Your task to perform on an android device: open chrome privacy settings Image 0: 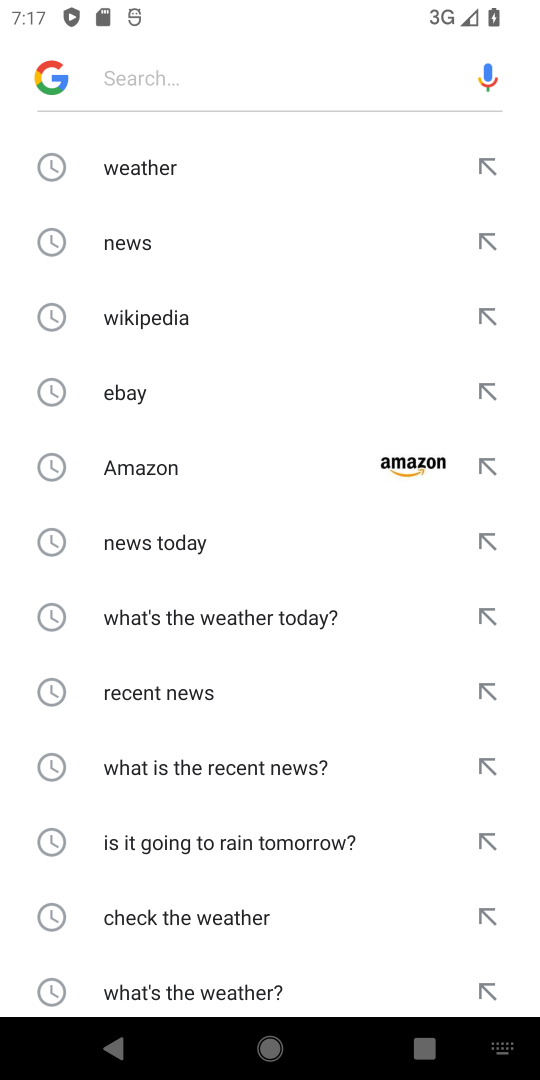
Step 0: press back button
Your task to perform on an android device: open chrome privacy settings Image 1: 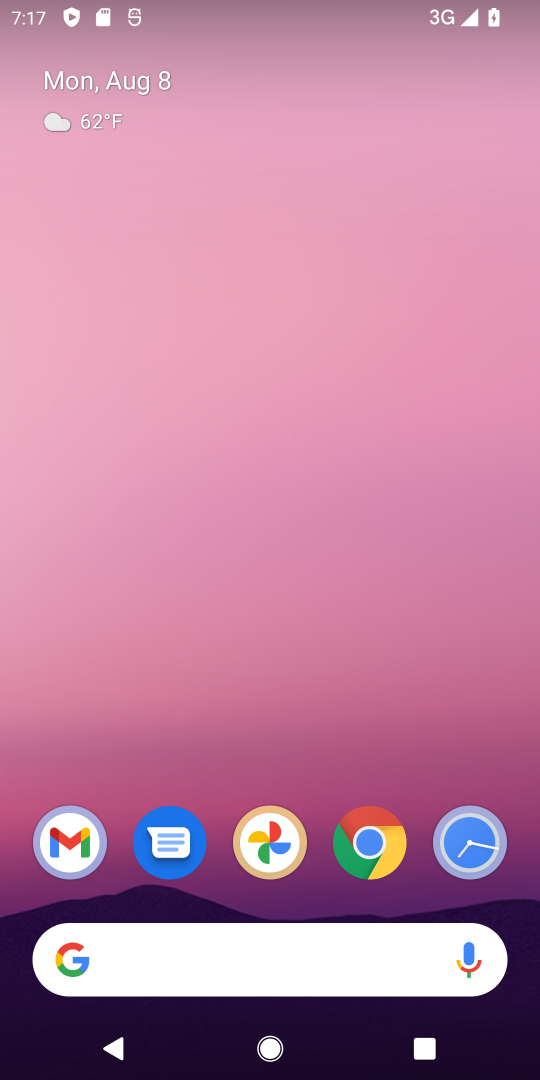
Step 1: click (377, 844)
Your task to perform on an android device: open chrome privacy settings Image 2: 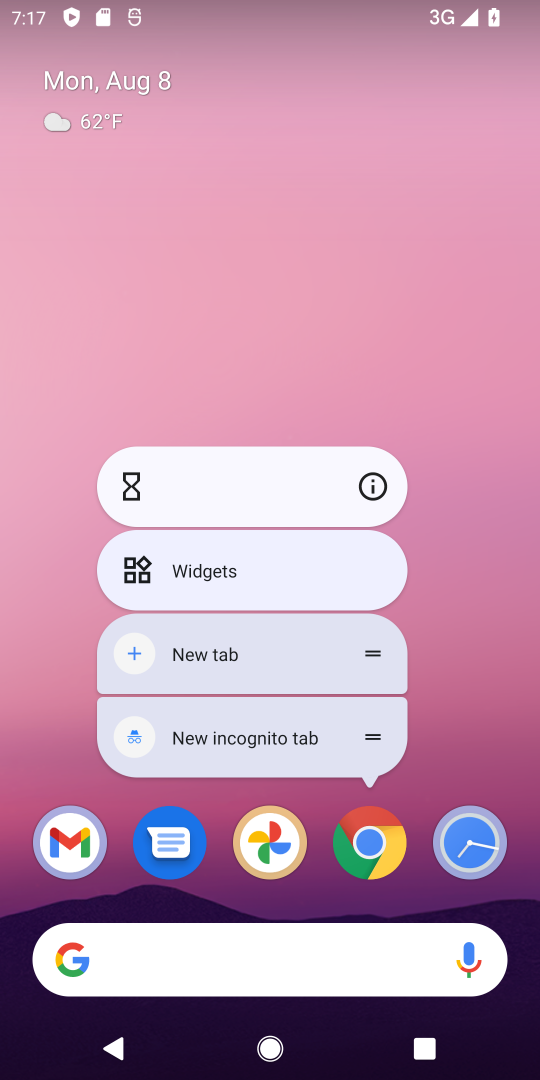
Step 2: click (389, 858)
Your task to perform on an android device: open chrome privacy settings Image 3: 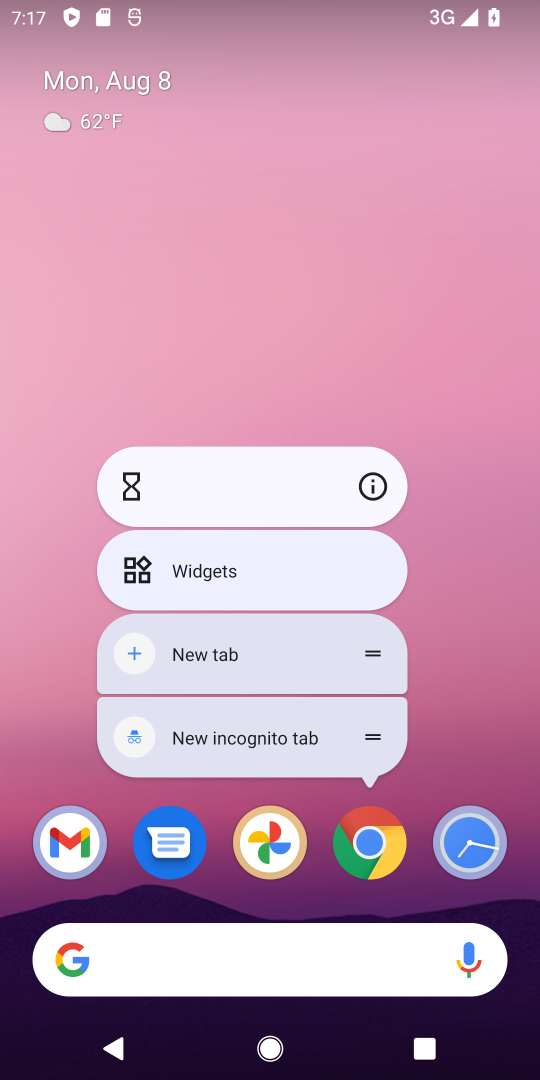
Step 3: click (389, 857)
Your task to perform on an android device: open chrome privacy settings Image 4: 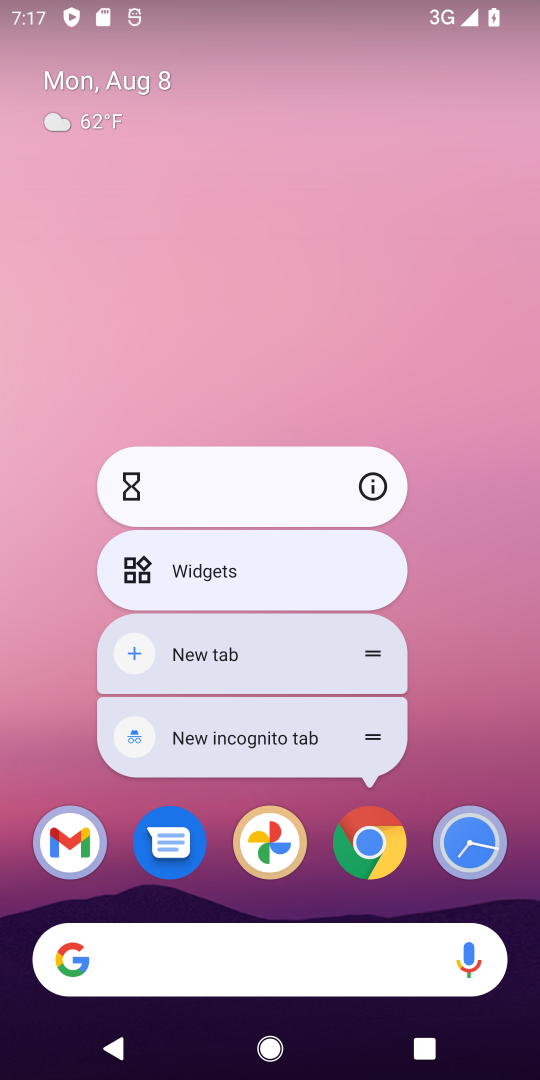
Step 4: click (386, 843)
Your task to perform on an android device: open chrome privacy settings Image 5: 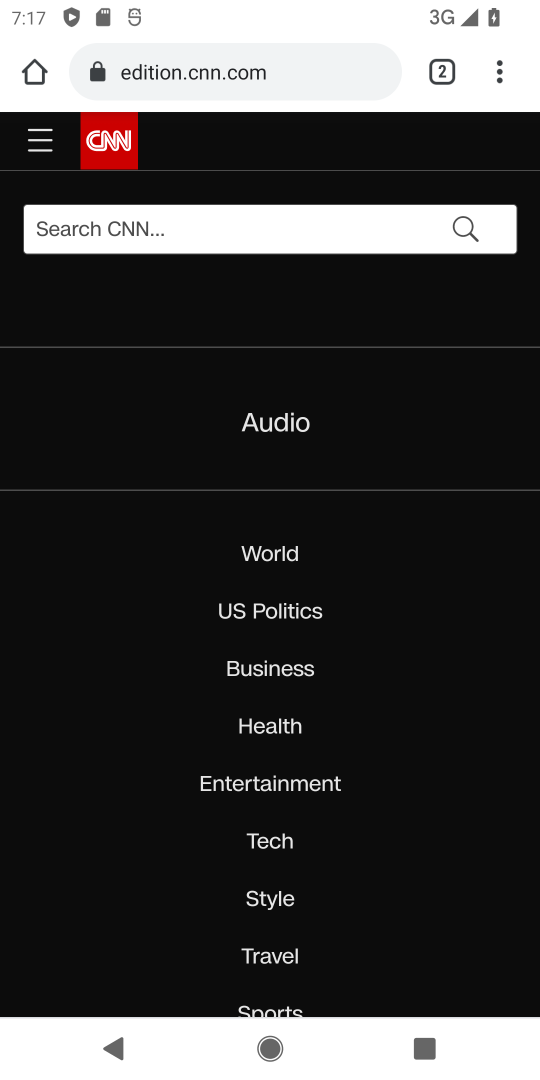
Step 5: drag from (491, 76) to (266, 834)
Your task to perform on an android device: open chrome privacy settings Image 6: 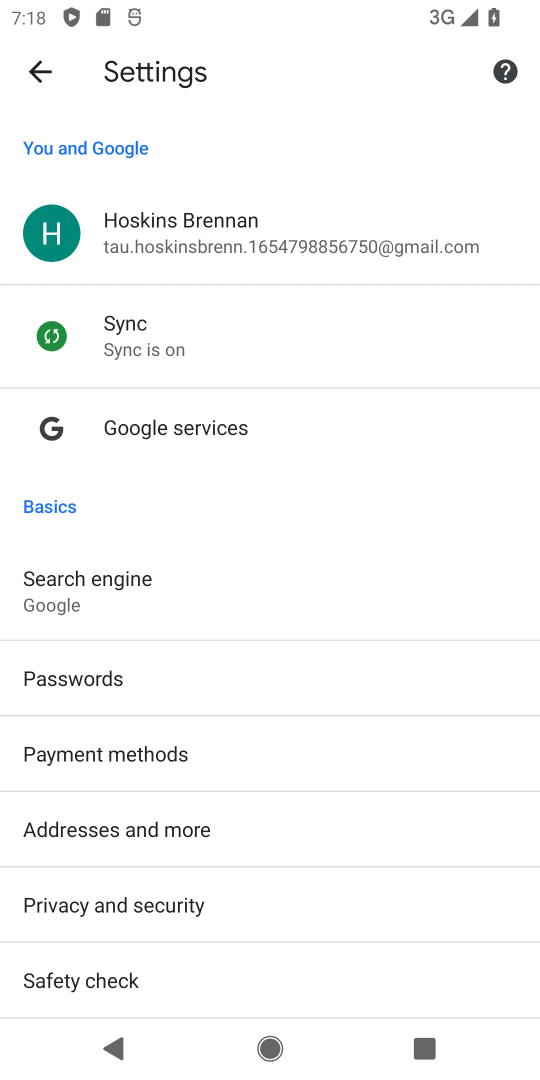
Step 6: drag from (106, 855) to (79, 104)
Your task to perform on an android device: open chrome privacy settings Image 7: 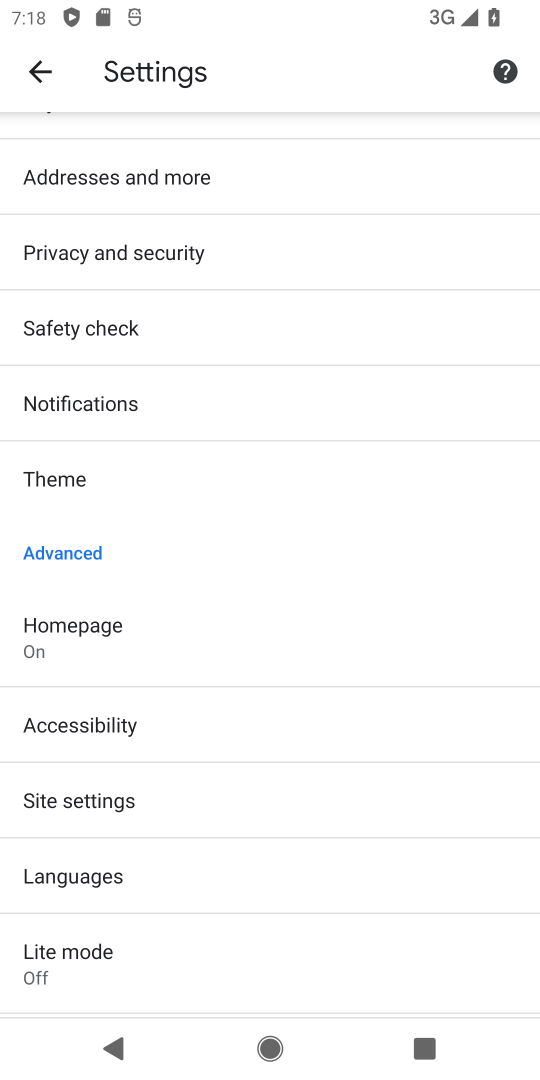
Step 7: click (58, 261)
Your task to perform on an android device: open chrome privacy settings Image 8: 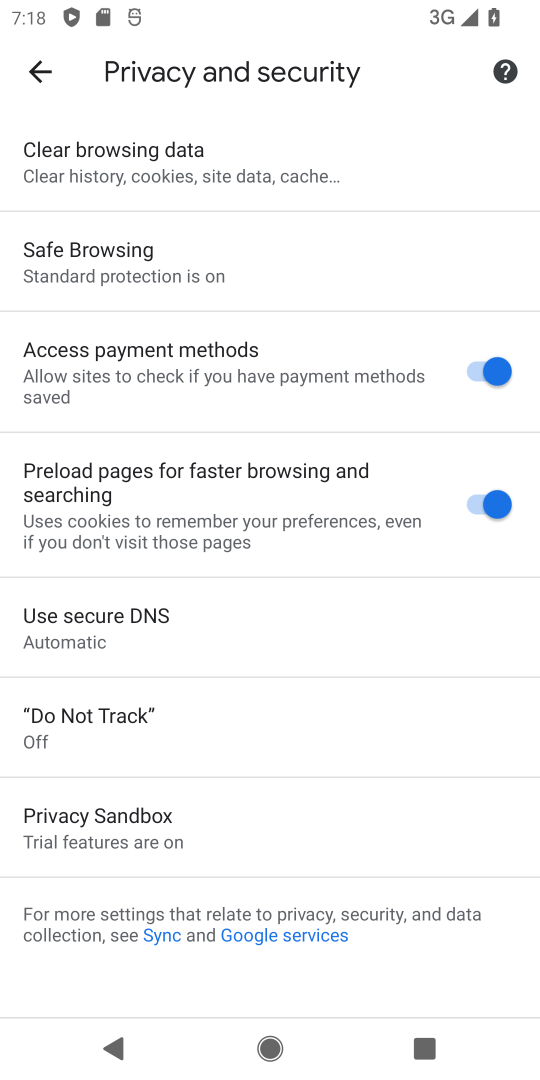
Step 8: task complete